Your task to perform on an android device: move a message to another label in the gmail app Image 0: 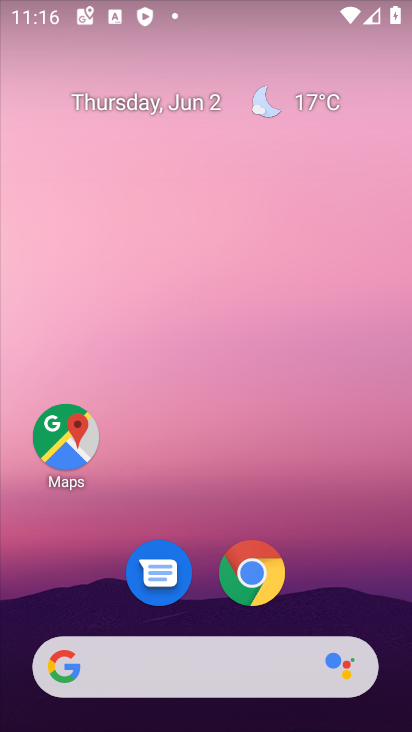
Step 0: drag from (327, 547) to (270, 0)
Your task to perform on an android device: move a message to another label in the gmail app Image 1: 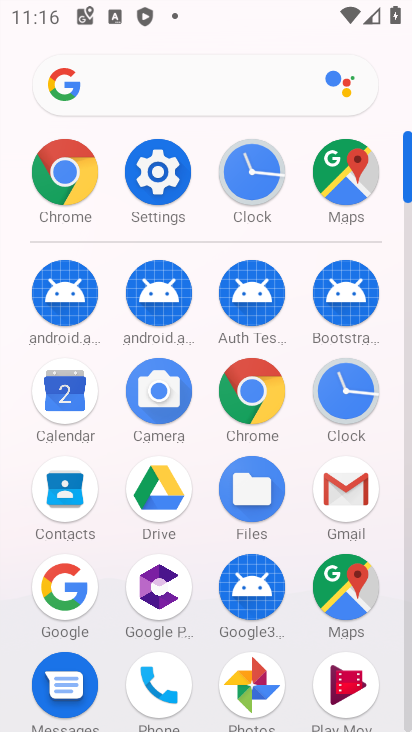
Step 1: click (360, 493)
Your task to perform on an android device: move a message to another label in the gmail app Image 2: 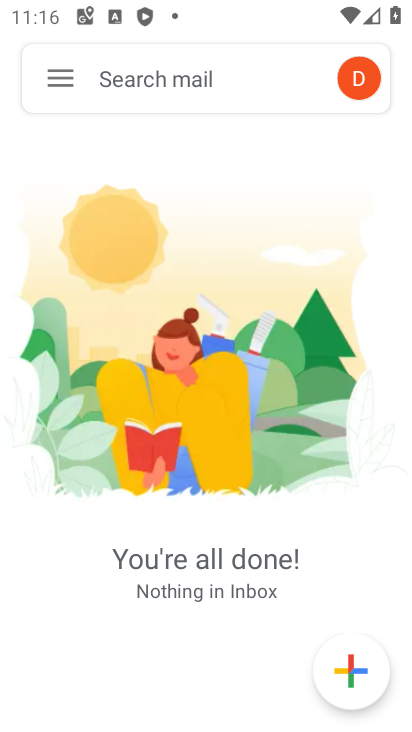
Step 2: task complete